Your task to perform on an android device: open sync settings in chrome Image 0: 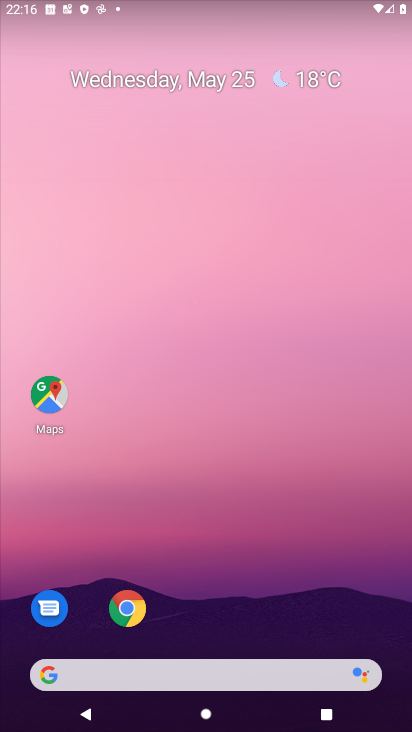
Step 0: drag from (289, 516) to (198, 671)
Your task to perform on an android device: open sync settings in chrome Image 1: 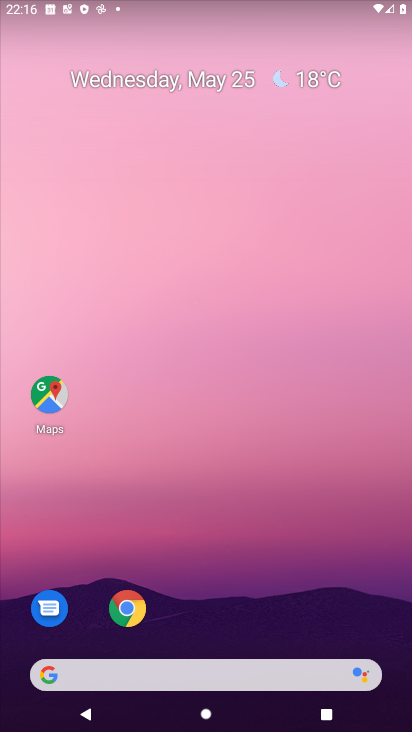
Step 1: click (124, 609)
Your task to perform on an android device: open sync settings in chrome Image 2: 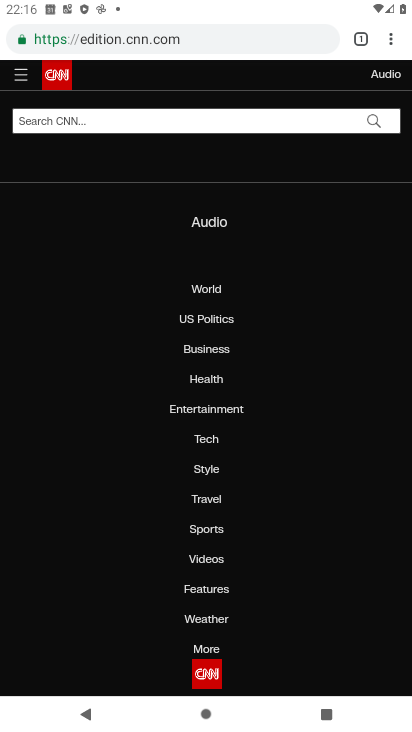
Step 2: click (389, 51)
Your task to perform on an android device: open sync settings in chrome Image 3: 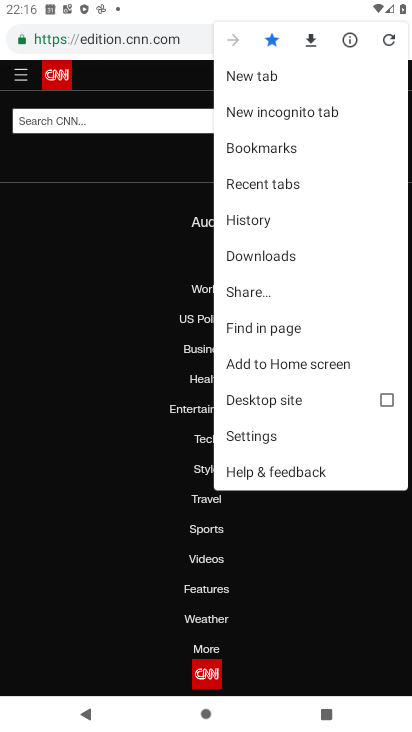
Step 3: click (270, 427)
Your task to perform on an android device: open sync settings in chrome Image 4: 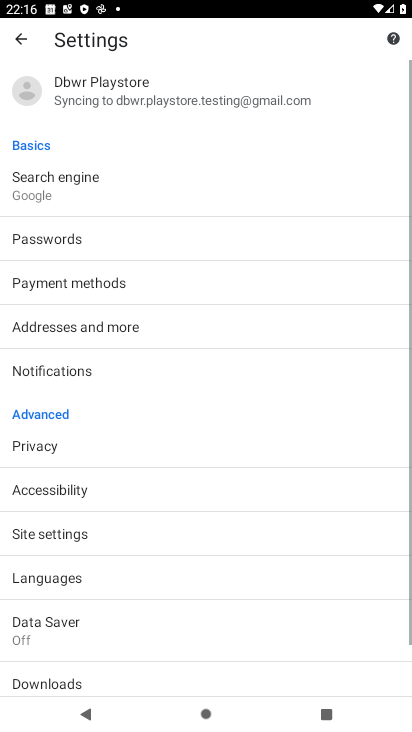
Step 4: click (130, 540)
Your task to perform on an android device: open sync settings in chrome Image 5: 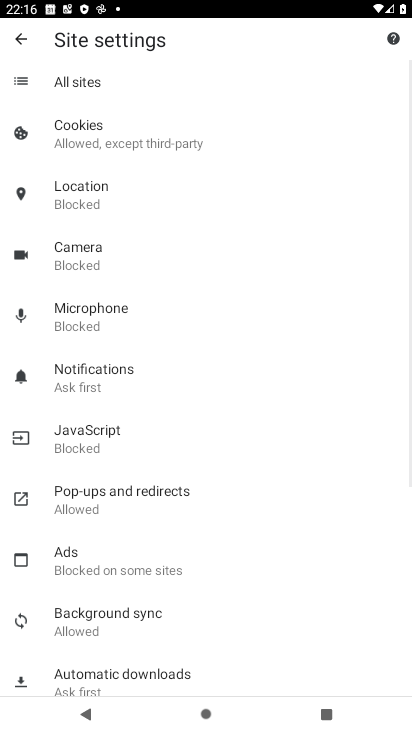
Step 5: click (125, 632)
Your task to perform on an android device: open sync settings in chrome Image 6: 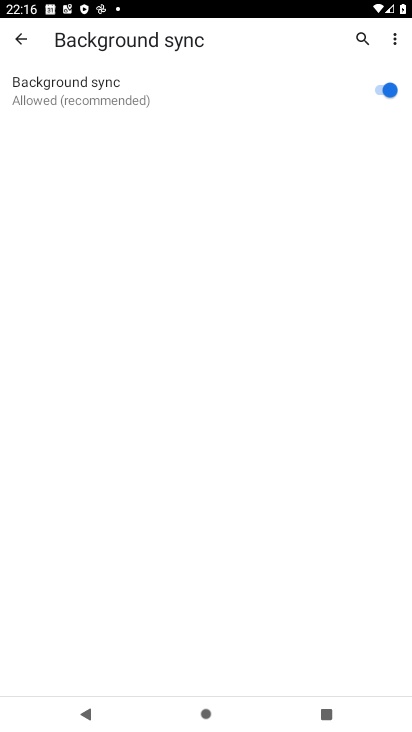
Step 6: task complete